Your task to perform on an android device: Go to calendar. Show me events next week Image 0: 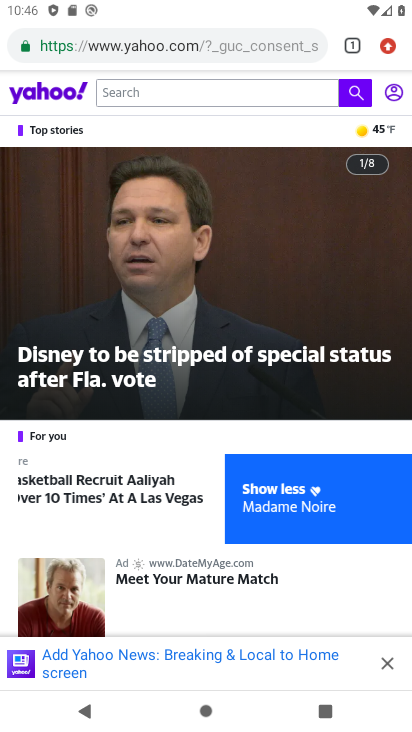
Step 0: press home button
Your task to perform on an android device: Go to calendar. Show me events next week Image 1: 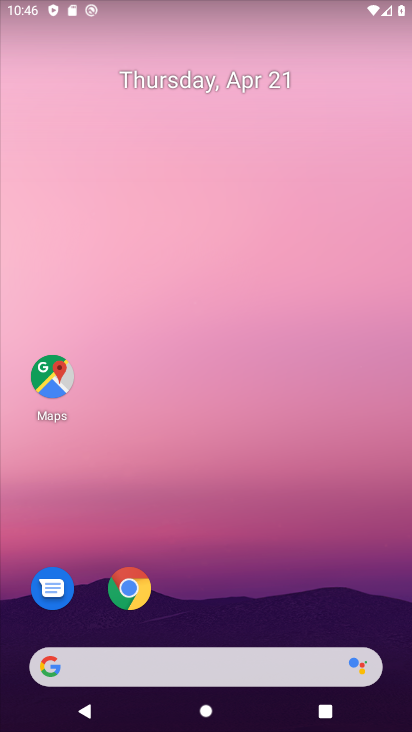
Step 1: drag from (203, 612) to (219, 83)
Your task to perform on an android device: Go to calendar. Show me events next week Image 2: 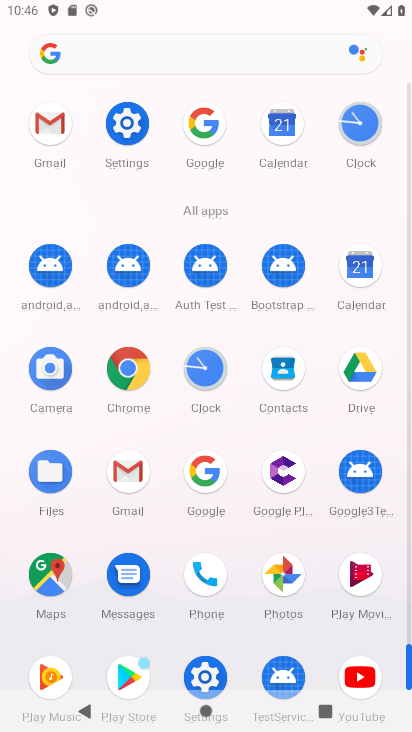
Step 2: click (349, 282)
Your task to perform on an android device: Go to calendar. Show me events next week Image 3: 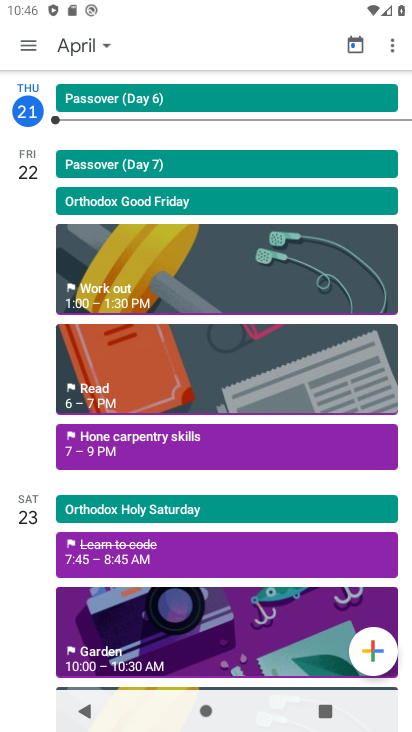
Step 3: click (109, 51)
Your task to perform on an android device: Go to calendar. Show me events next week Image 4: 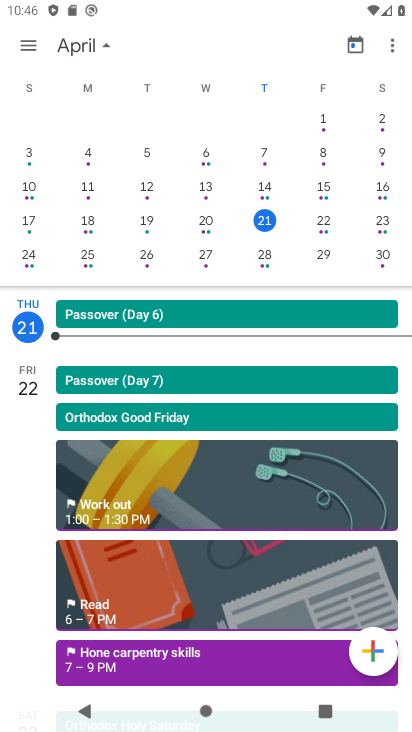
Step 4: click (77, 258)
Your task to perform on an android device: Go to calendar. Show me events next week Image 5: 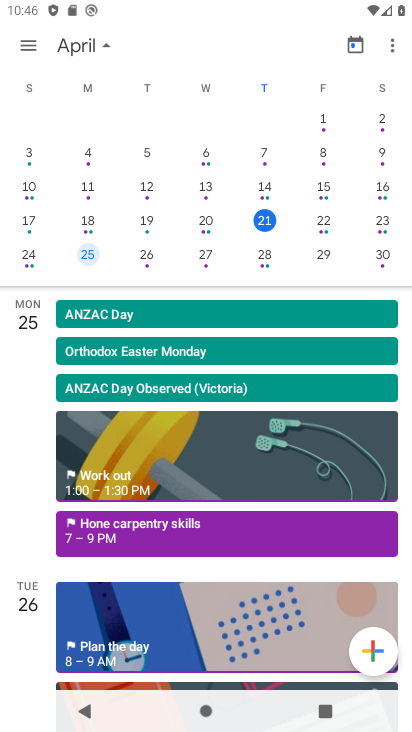
Step 5: click (209, 391)
Your task to perform on an android device: Go to calendar. Show me events next week Image 6: 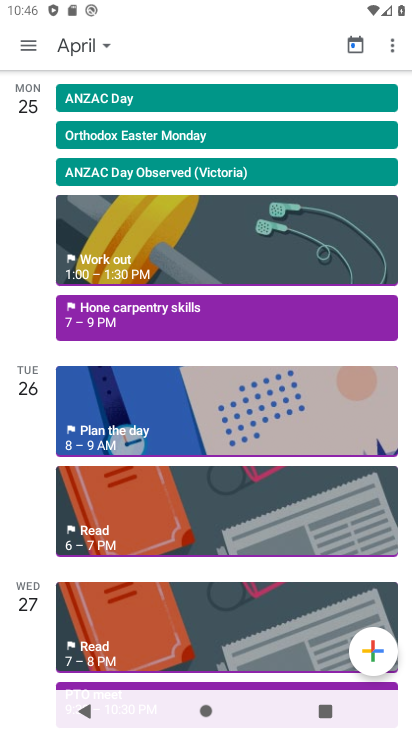
Step 6: task complete